Your task to perform on an android device: stop showing notifications on the lock screen Image 0: 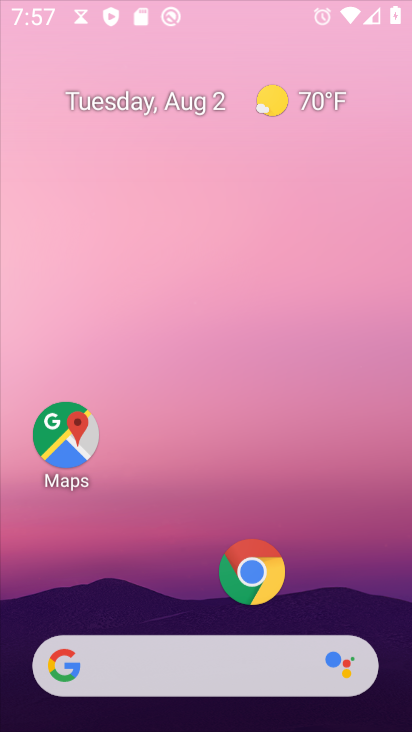
Step 0: press home button
Your task to perform on an android device: stop showing notifications on the lock screen Image 1: 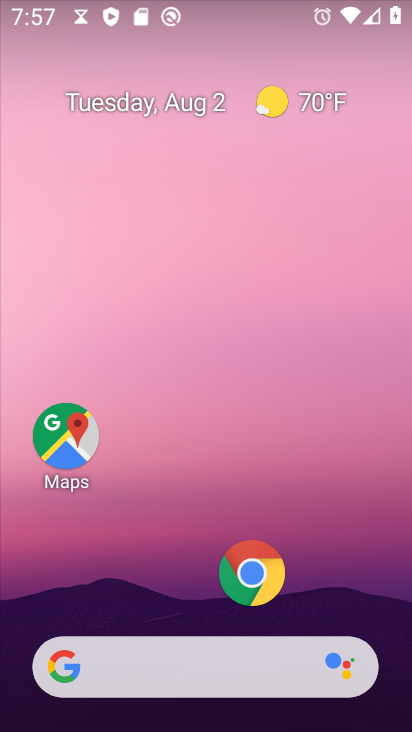
Step 1: drag from (190, 622) to (237, 24)
Your task to perform on an android device: stop showing notifications on the lock screen Image 2: 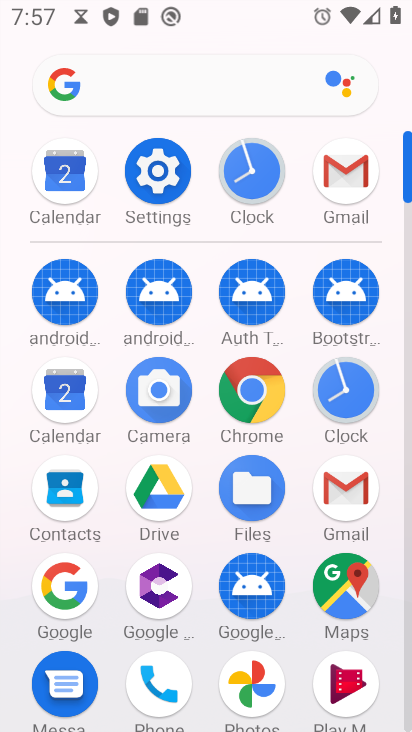
Step 2: click (151, 164)
Your task to perform on an android device: stop showing notifications on the lock screen Image 3: 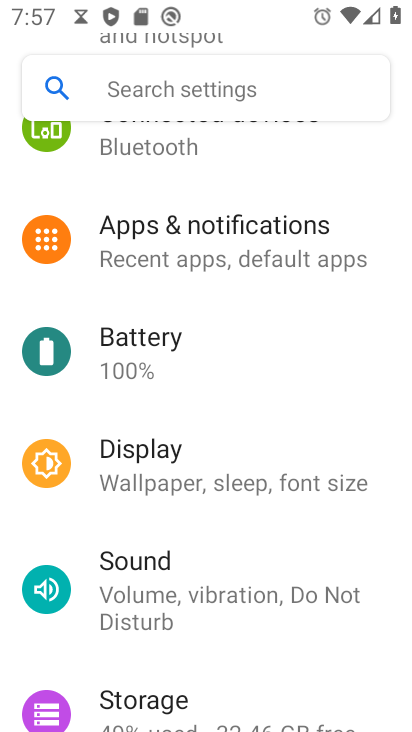
Step 3: click (225, 238)
Your task to perform on an android device: stop showing notifications on the lock screen Image 4: 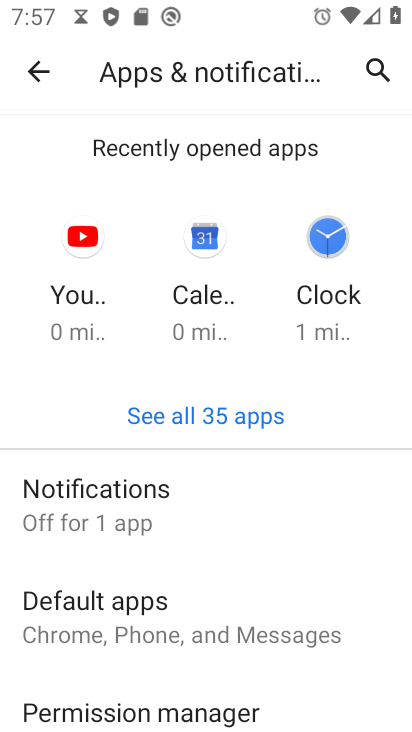
Step 4: click (165, 503)
Your task to perform on an android device: stop showing notifications on the lock screen Image 5: 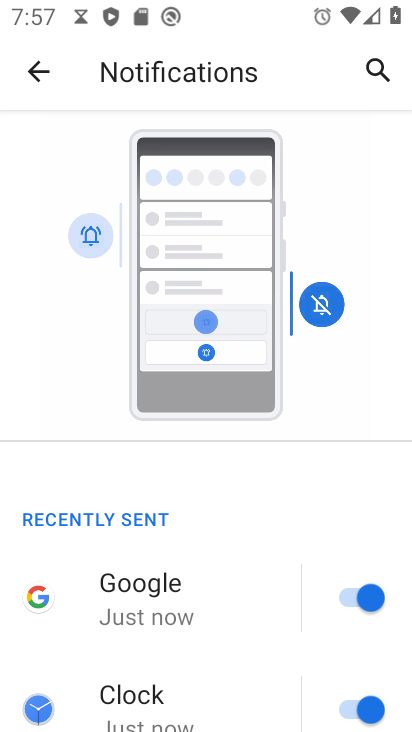
Step 5: drag from (216, 659) to (276, 98)
Your task to perform on an android device: stop showing notifications on the lock screen Image 6: 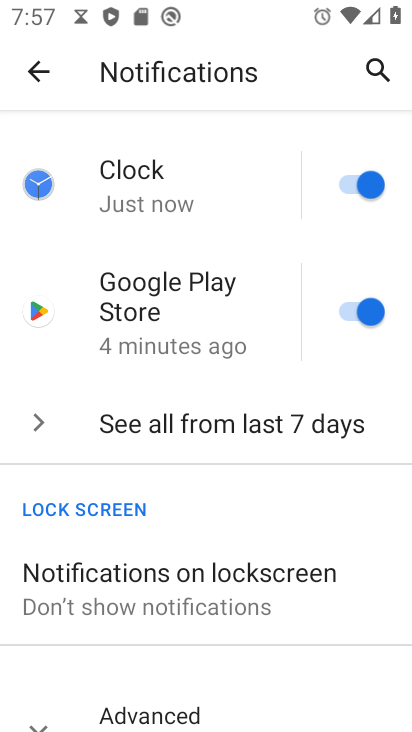
Step 6: click (257, 583)
Your task to perform on an android device: stop showing notifications on the lock screen Image 7: 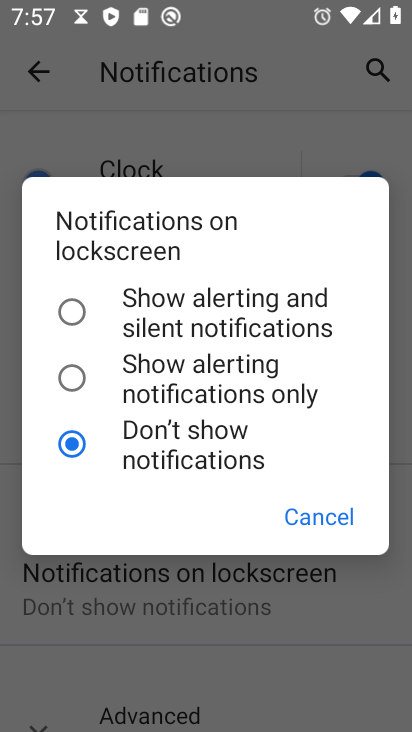
Step 7: click (78, 432)
Your task to perform on an android device: stop showing notifications on the lock screen Image 8: 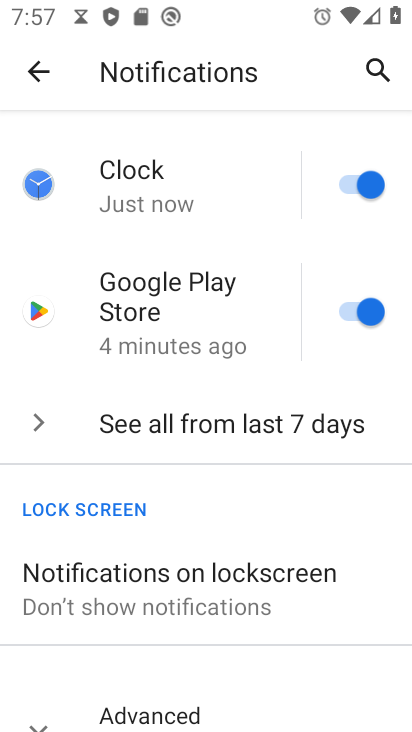
Step 8: task complete